Your task to perform on an android device: toggle data saver in the chrome app Image 0: 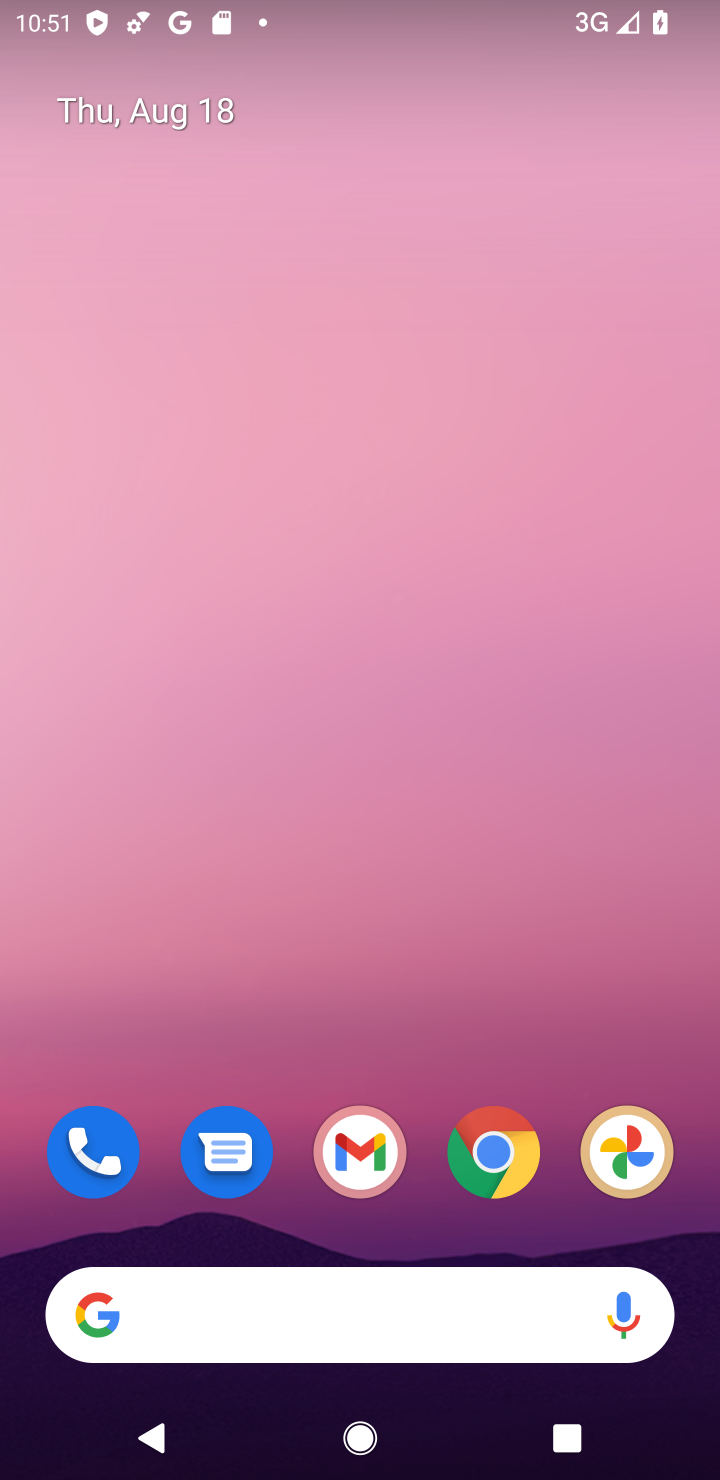
Step 0: drag from (426, 1070) to (449, 113)
Your task to perform on an android device: toggle data saver in the chrome app Image 1: 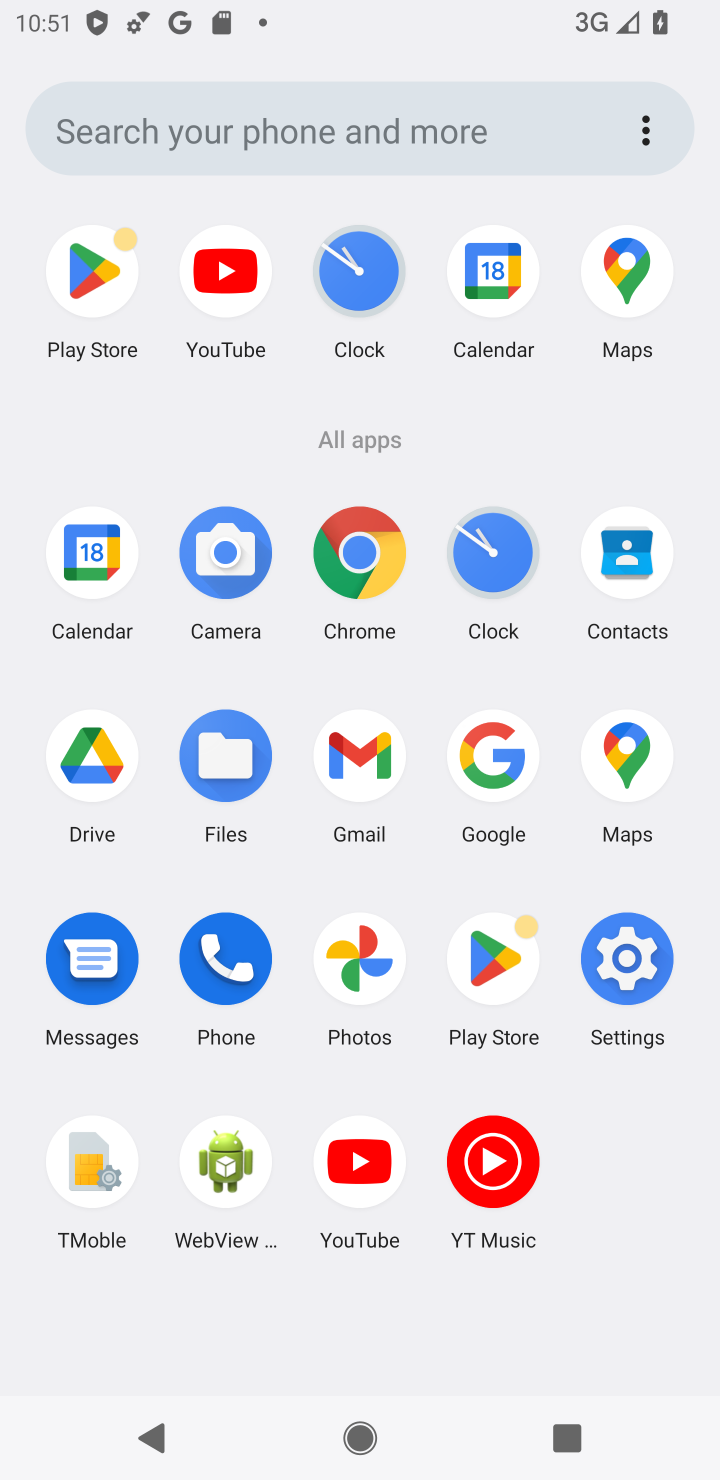
Step 1: click (374, 578)
Your task to perform on an android device: toggle data saver in the chrome app Image 2: 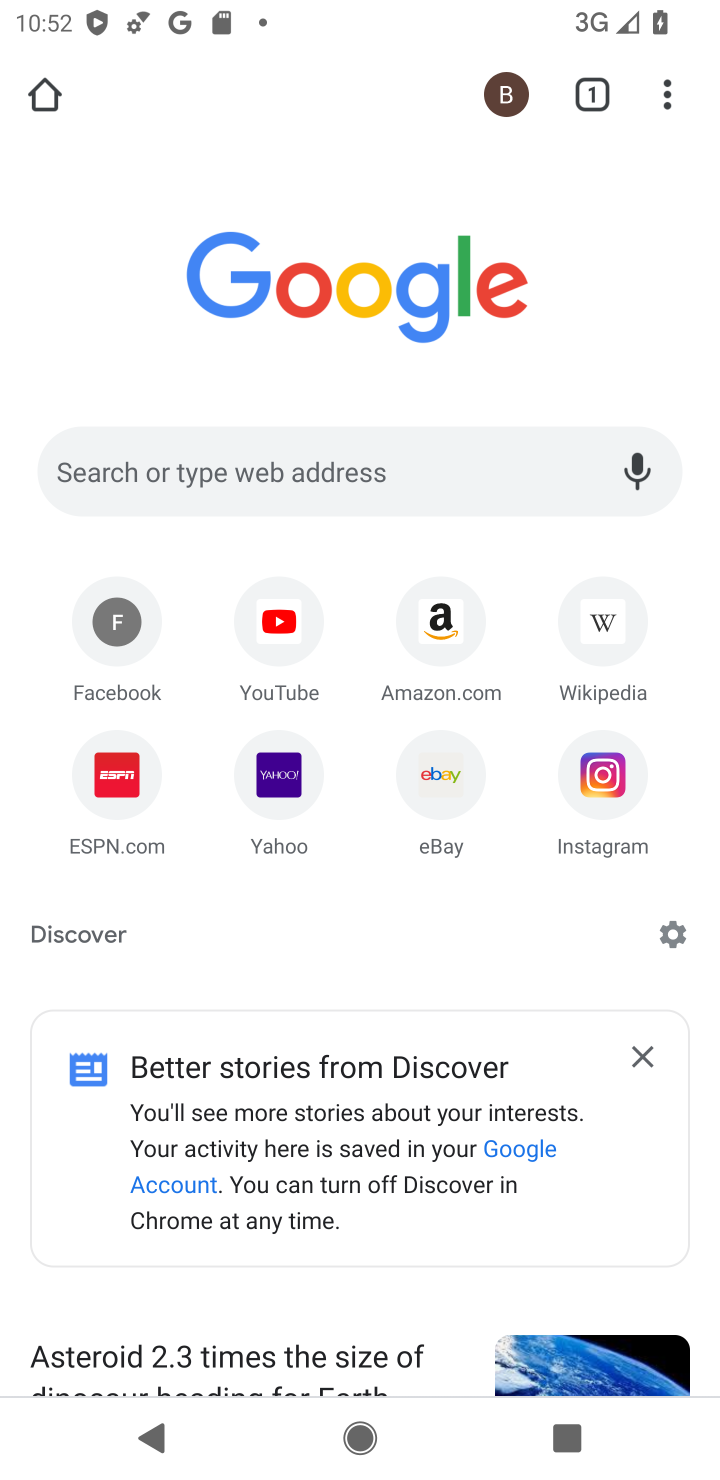
Step 2: drag from (676, 101) to (409, 866)
Your task to perform on an android device: toggle data saver in the chrome app Image 3: 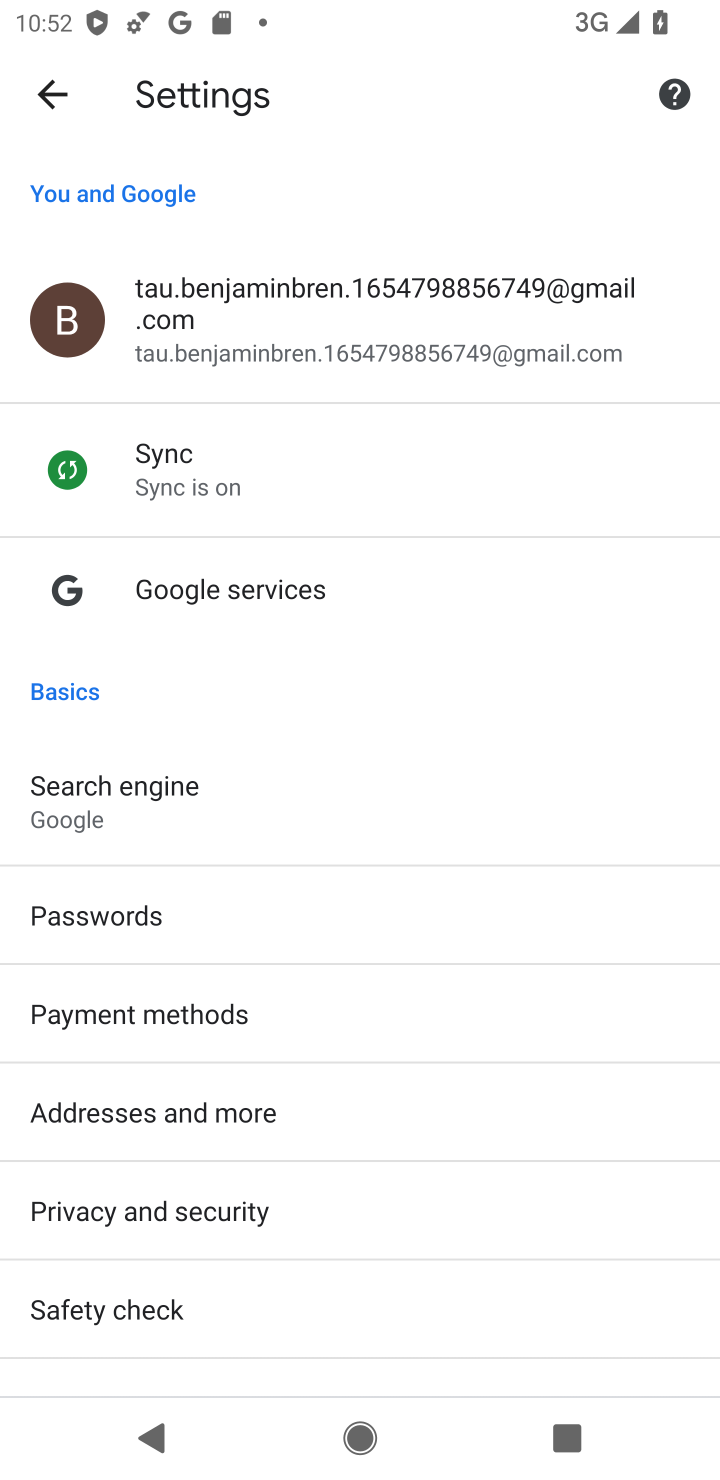
Step 3: drag from (381, 1236) to (373, 463)
Your task to perform on an android device: toggle data saver in the chrome app Image 4: 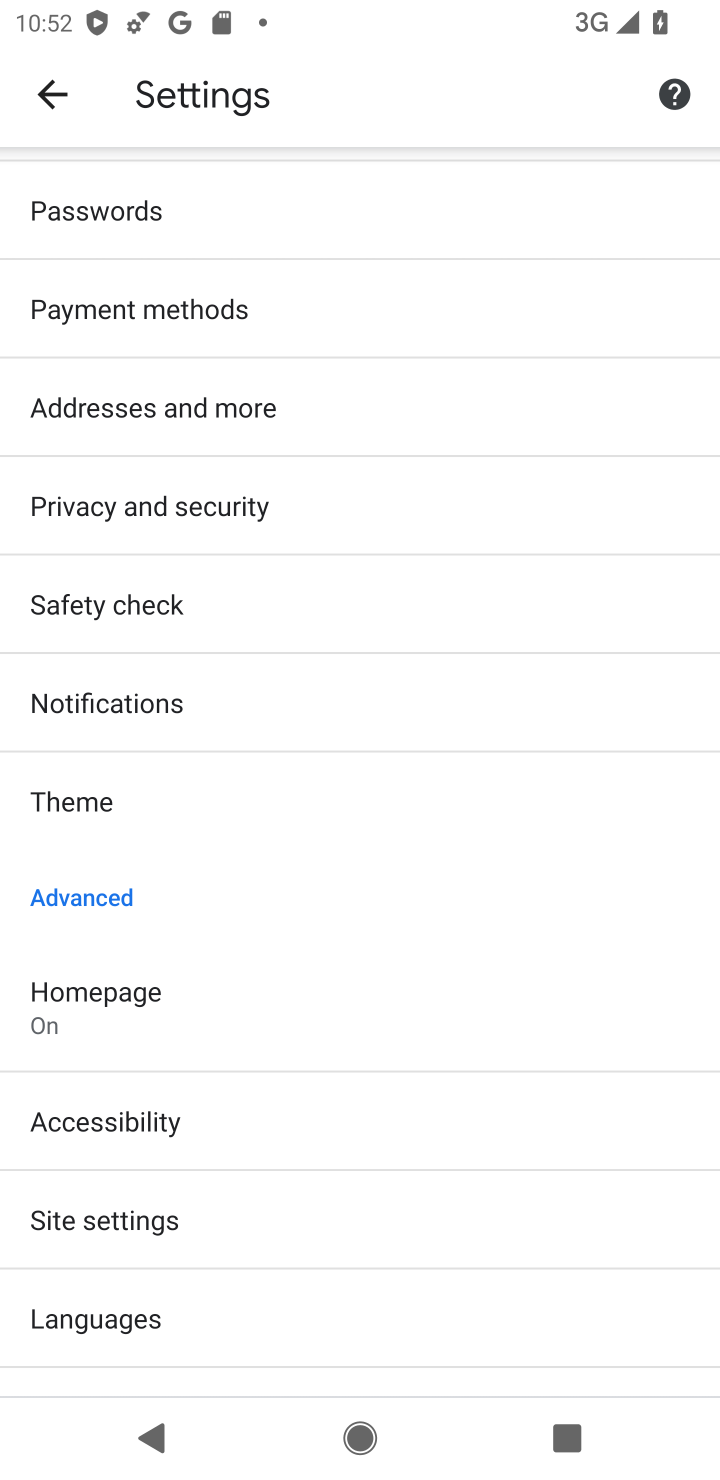
Step 4: drag from (420, 1267) to (389, 585)
Your task to perform on an android device: toggle data saver in the chrome app Image 5: 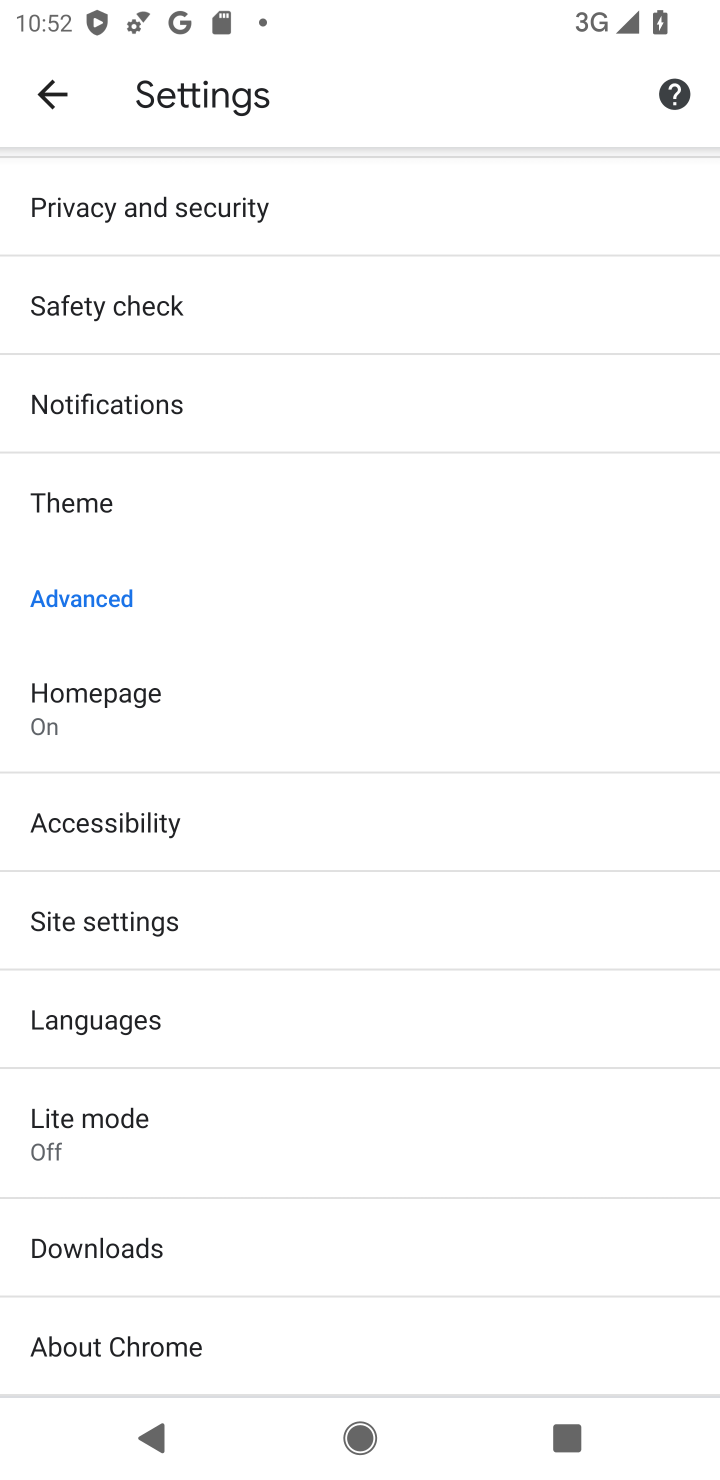
Step 5: click (56, 1126)
Your task to perform on an android device: toggle data saver in the chrome app Image 6: 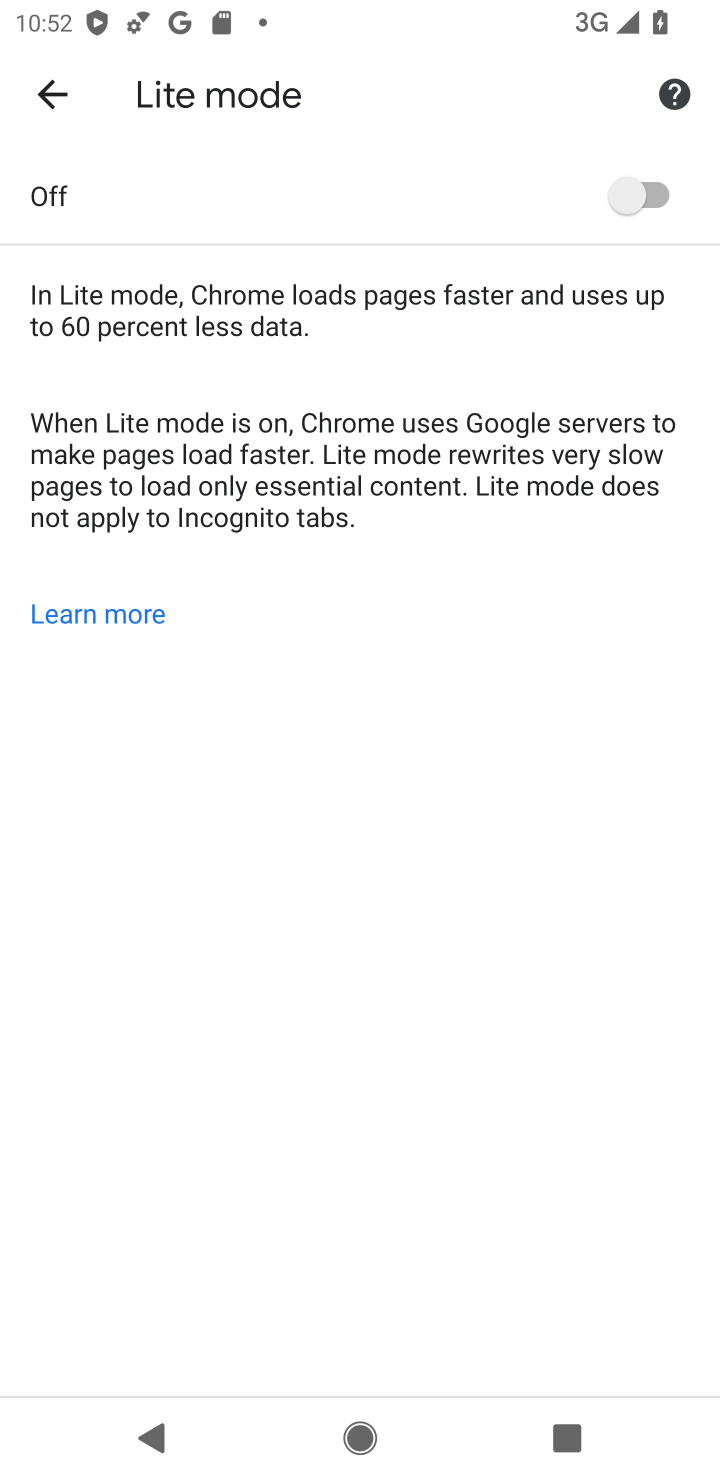
Step 6: click (463, 247)
Your task to perform on an android device: toggle data saver in the chrome app Image 7: 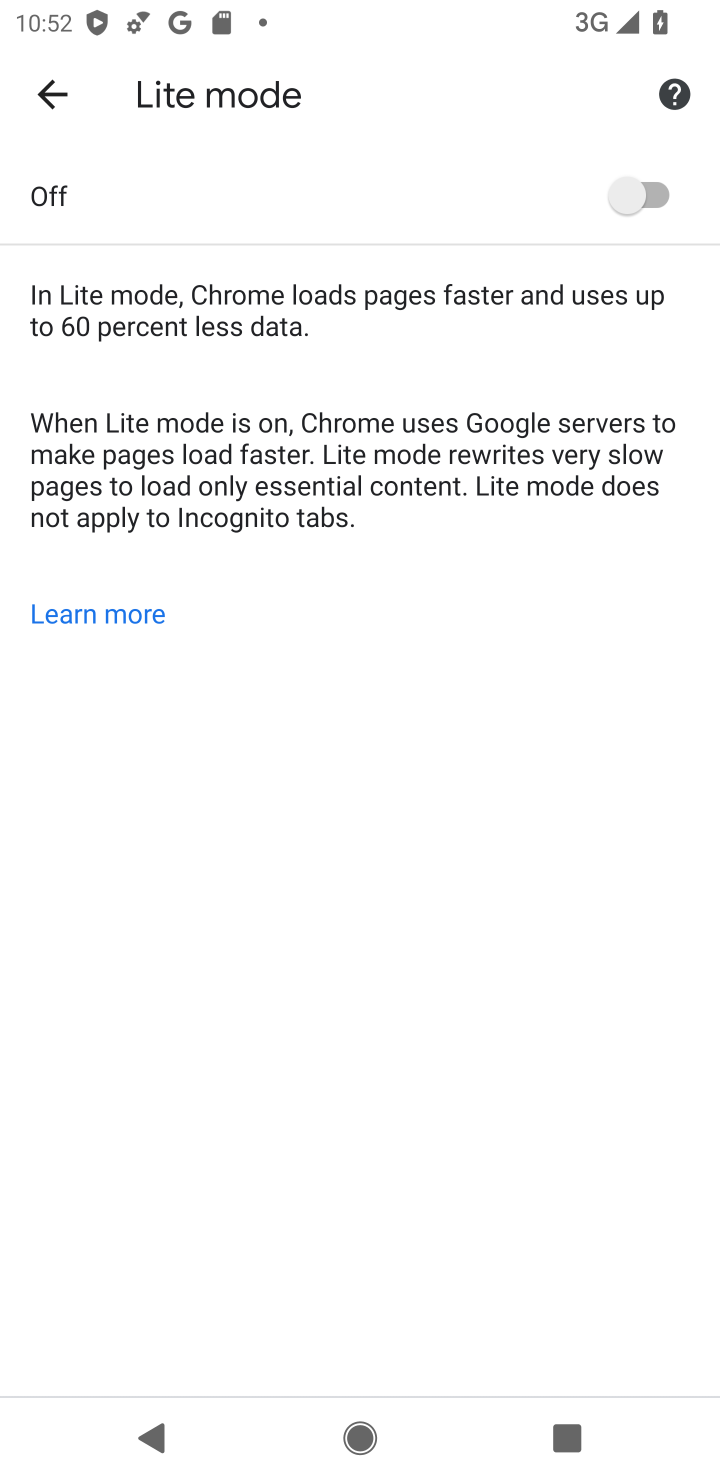
Step 7: drag from (588, 197) to (702, 224)
Your task to perform on an android device: toggle data saver in the chrome app Image 8: 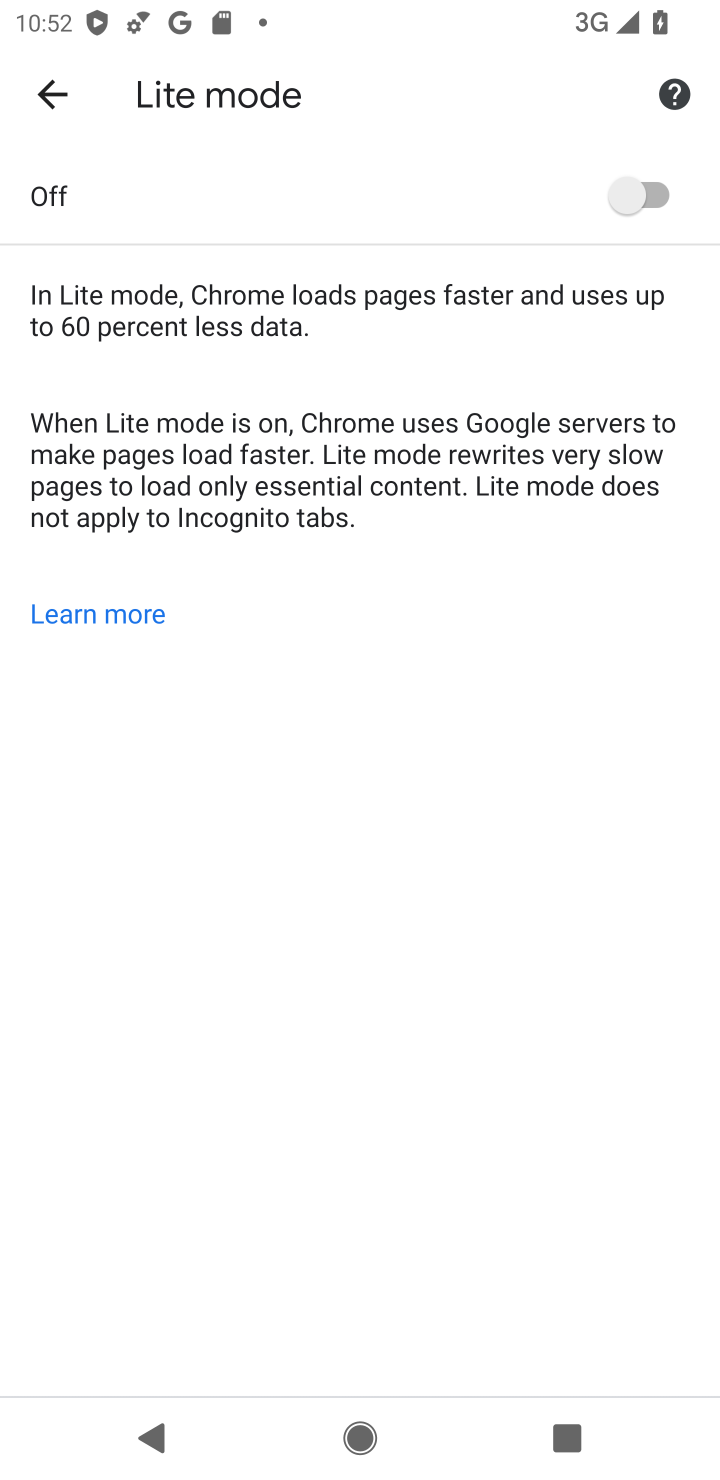
Step 8: click (571, 182)
Your task to perform on an android device: toggle data saver in the chrome app Image 9: 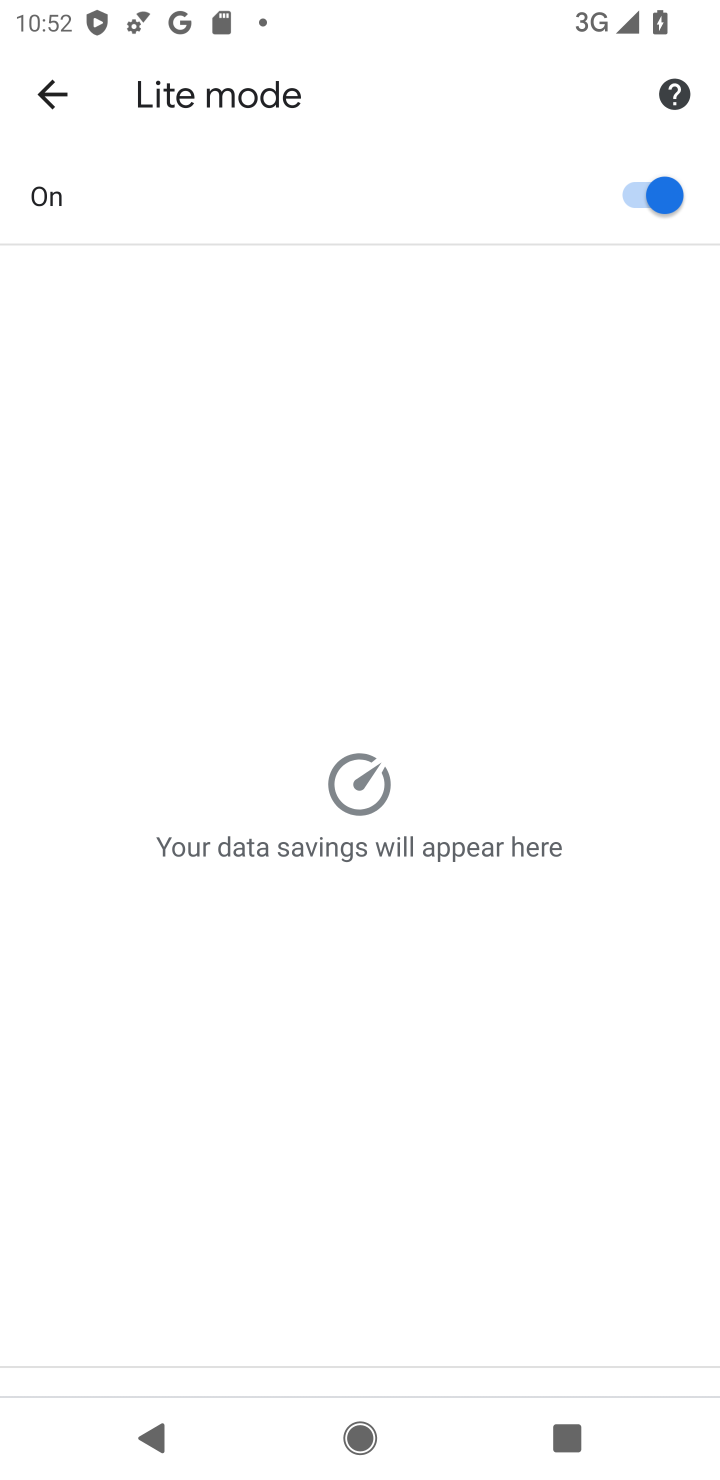
Step 9: task complete